Your task to perform on an android device: Is it going to rain this weekend? Image 0: 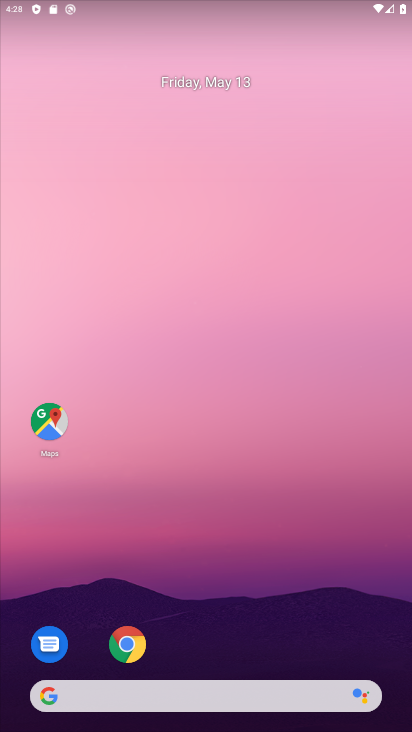
Step 0: drag from (200, 674) to (261, 16)
Your task to perform on an android device: Is it going to rain this weekend? Image 1: 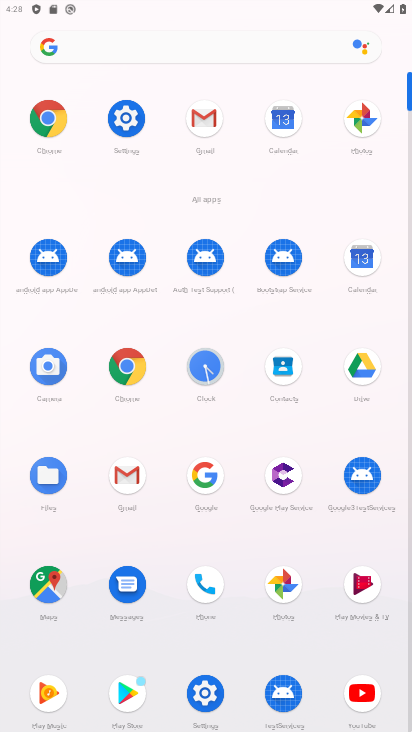
Step 1: click (366, 270)
Your task to perform on an android device: Is it going to rain this weekend? Image 2: 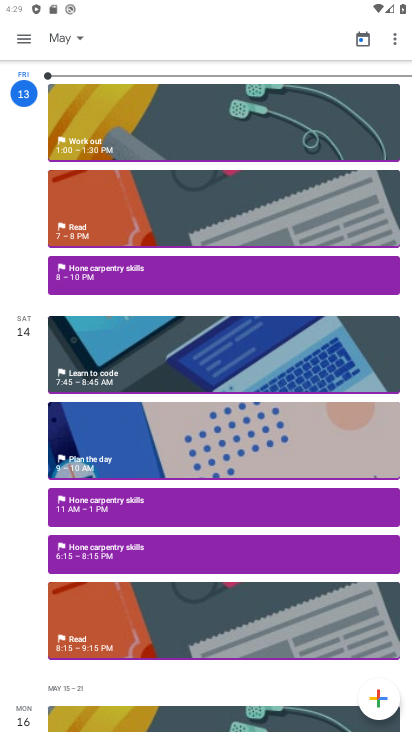
Step 2: press back button
Your task to perform on an android device: Is it going to rain this weekend? Image 3: 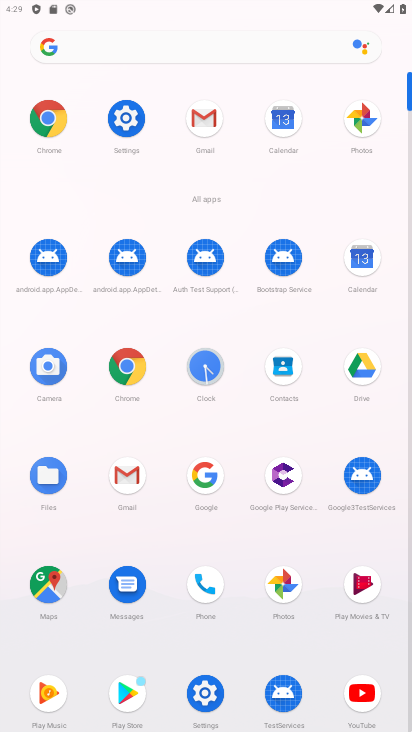
Step 3: press back button
Your task to perform on an android device: Is it going to rain this weekend? Image 4: 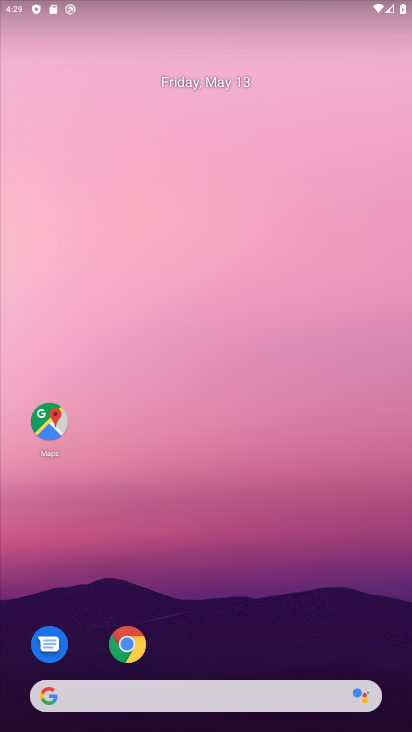
Step 4: drag from (214, 590) to (290, 48)
Your task to perform on an android device: Is it going to rain this weekend? Image 5: 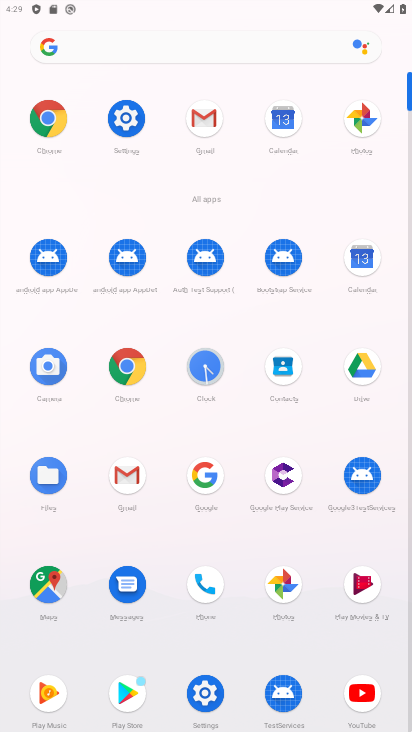
Step 5: click (107, 47)
Your task to perform on an android device: Is it going to rain this weekend? Image 6: 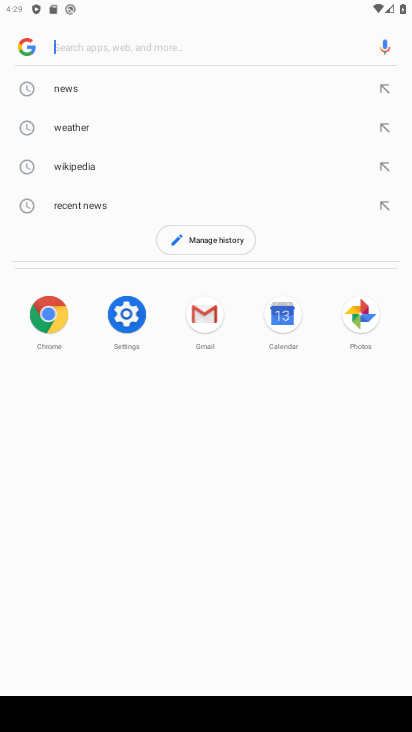
Step 6: click (87, 124)
Your task to perform on an android device: Is it going to rain this weekend? Image 7: 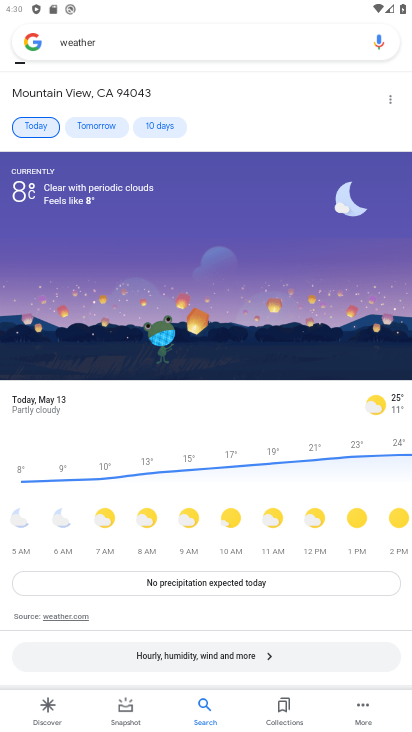
Step 7: click (163, 124)
Your task to perform on an android device: Is it going to rain this weekend? Image 8: 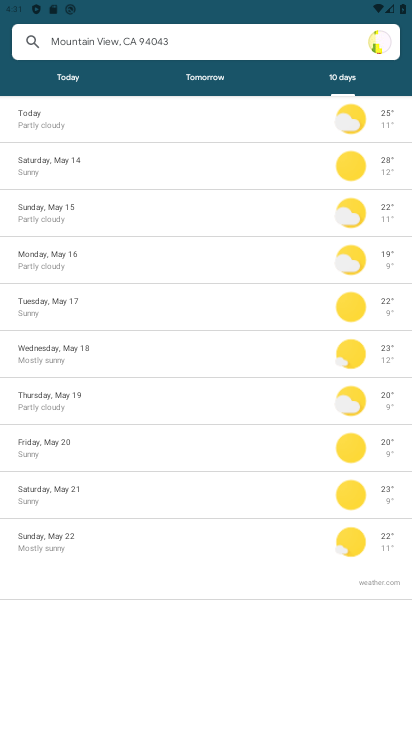
Step 8: click (87, 206)
Your task to perform on an android device: Is it going to rain this weekend? Image 9: 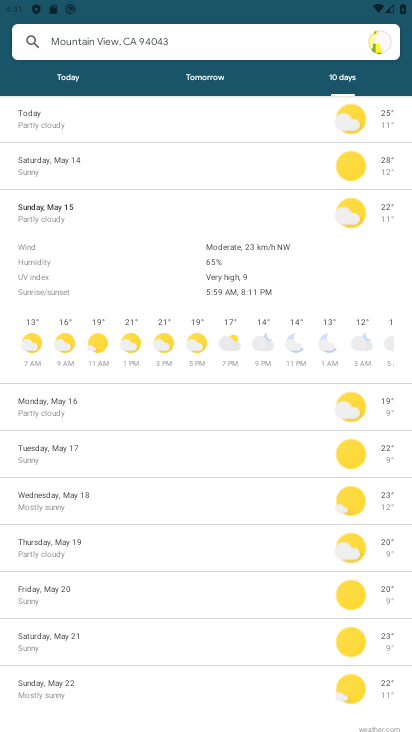
Step 9: task complete